Your task to perform on an android device: Open Google Image 0: 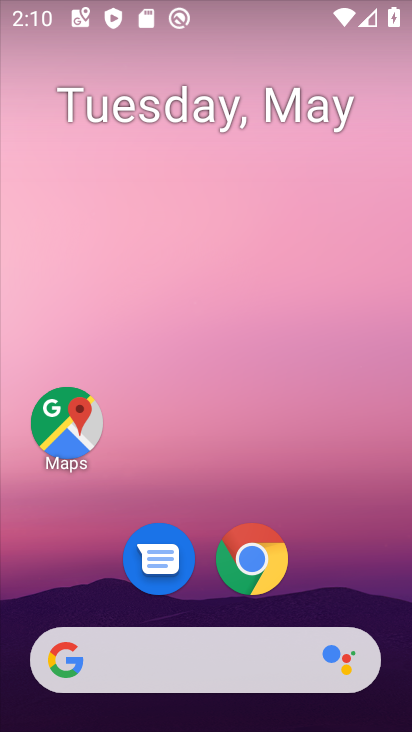
Step 0: drag from (192, 665) to (326, 97)
Your task to perform on an android device: Open Google Image 1: 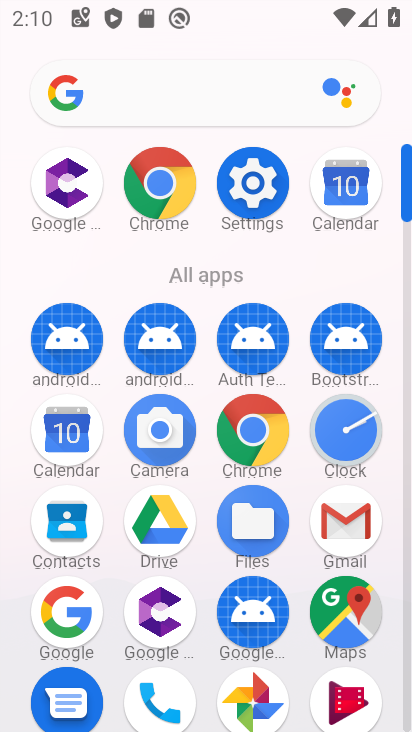
Step 1: click (76, 622)
Your task to perform on an android device: Open Google Image 2: 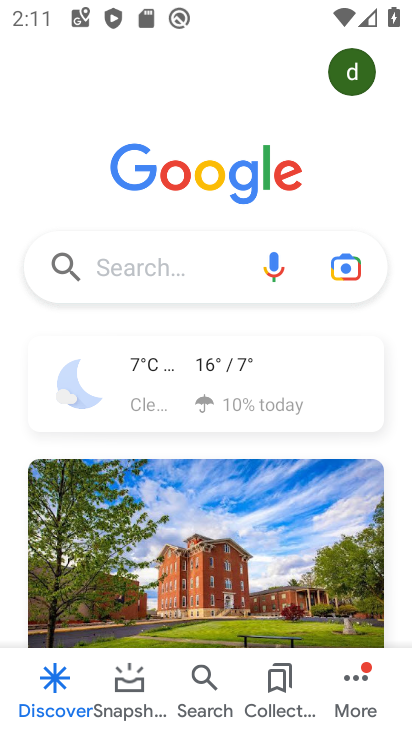
Step 2: task complete